Your task to perform on an android device: Open Chrome and go to the settings page Image 0: 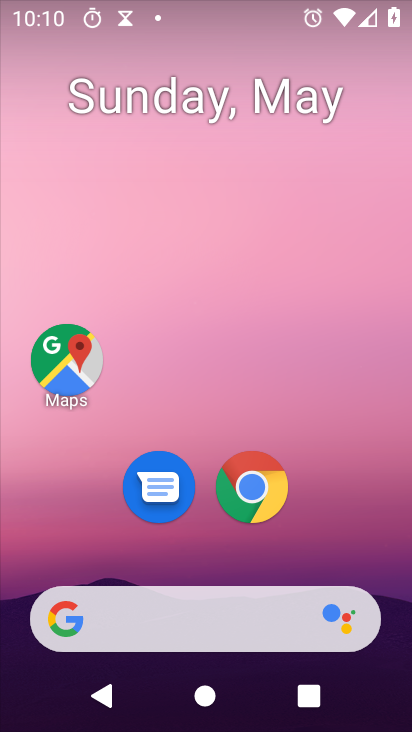
Step 0: drag from (368, 483) to (95, 3)
Your task to perform on an android device: Open Chrome and go to the settings page Image 1: 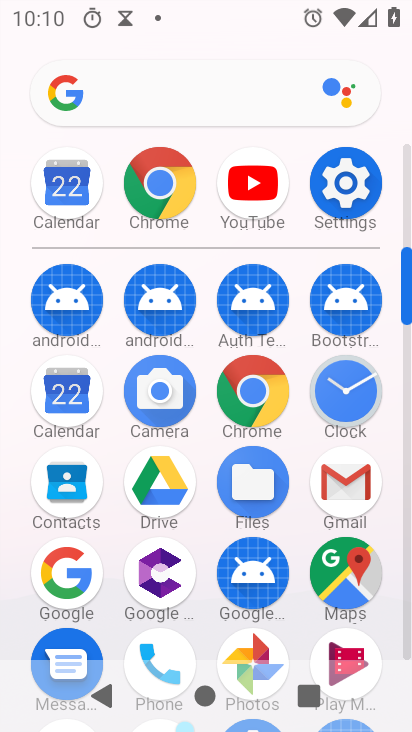
Step 1: click (348, 163)
Your task to perform on an android device: Open Chrome and go to the settings page Image 2: 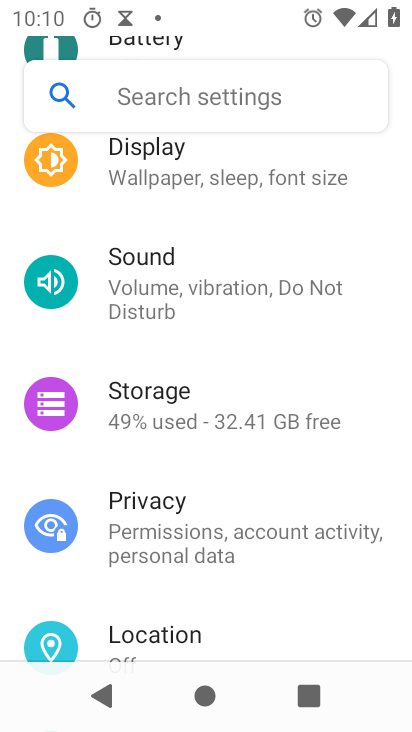
Step 2: click (342, 623)
Your task to perform on an android device: Open Chrome and go to the settings page Image 3: 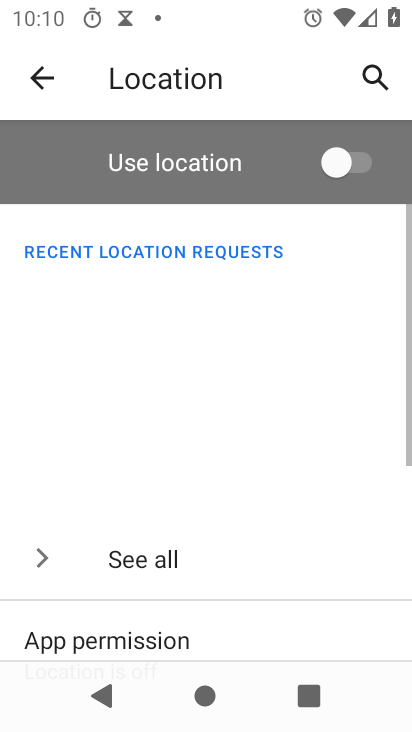
Step 3: drag from (307, 627) to (222, 346)
Your task to perform on an android device: Open Chrome and go to the settings page Image 4: 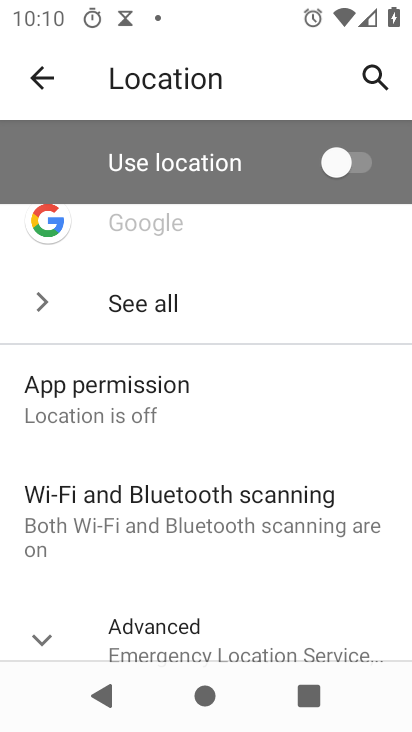
Step 4: click (56, 83)
Your task to perform on an android device: Open Chrome and go to the settings page Image 5: 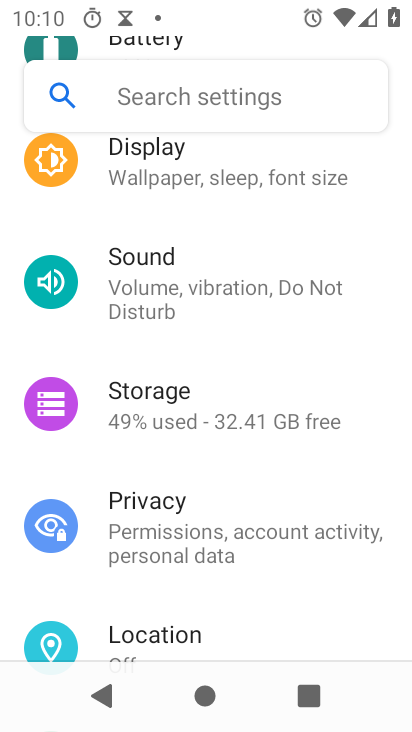
Step 5: task complete